Your task to perform on an android device: Open Android settings Image 0: 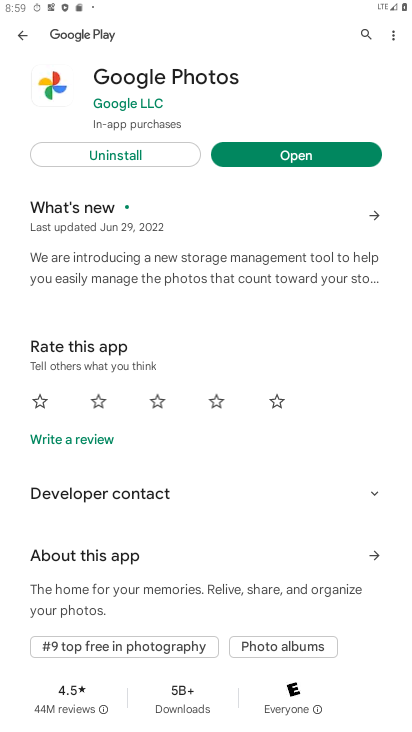
Step 0: press home button
Your task to perform on an android device: Open Android settings Image 1: 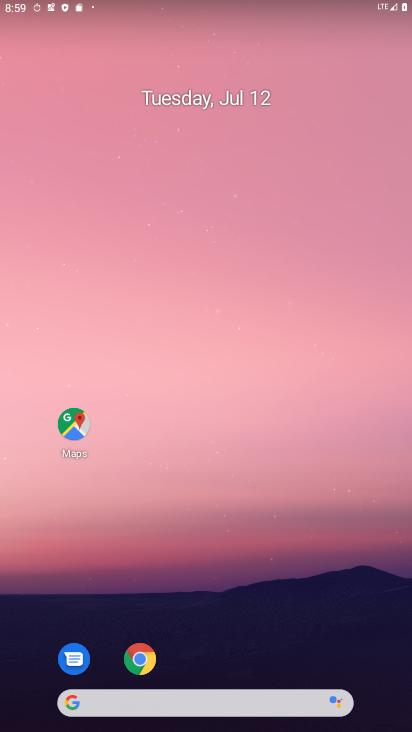
Step 1: drag from (366, 567) to (250, 4)
Your task to perform on an android device: Open Android settings Image 2: 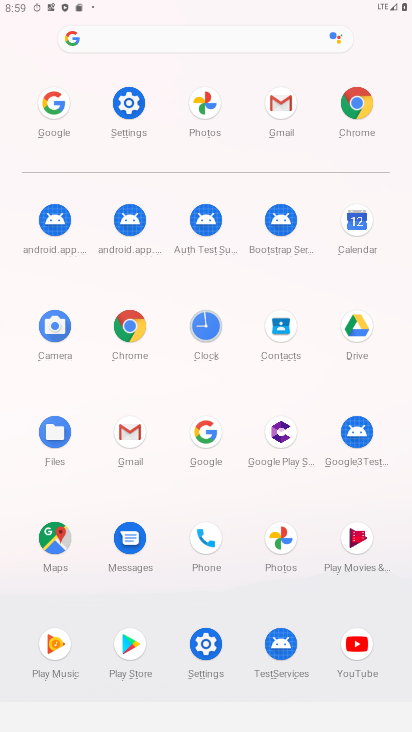
Step 2: click (121, 99)
Your task to perform on an android device: Open Android settings Image 3: 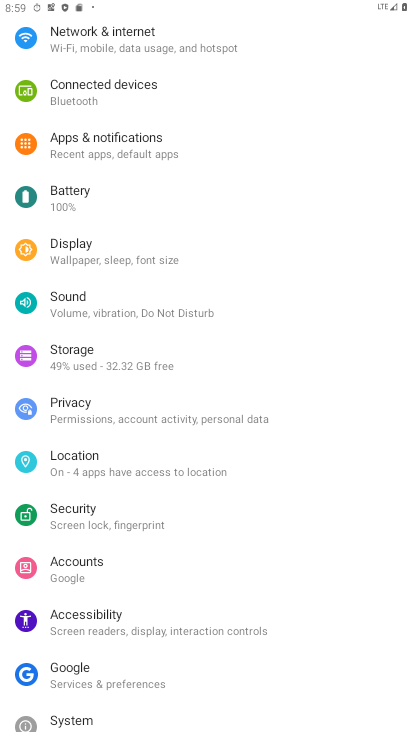
Step 3: task complete